Your task to perform on an android device: install app "DoorDash - Food Delivery" Image 0: 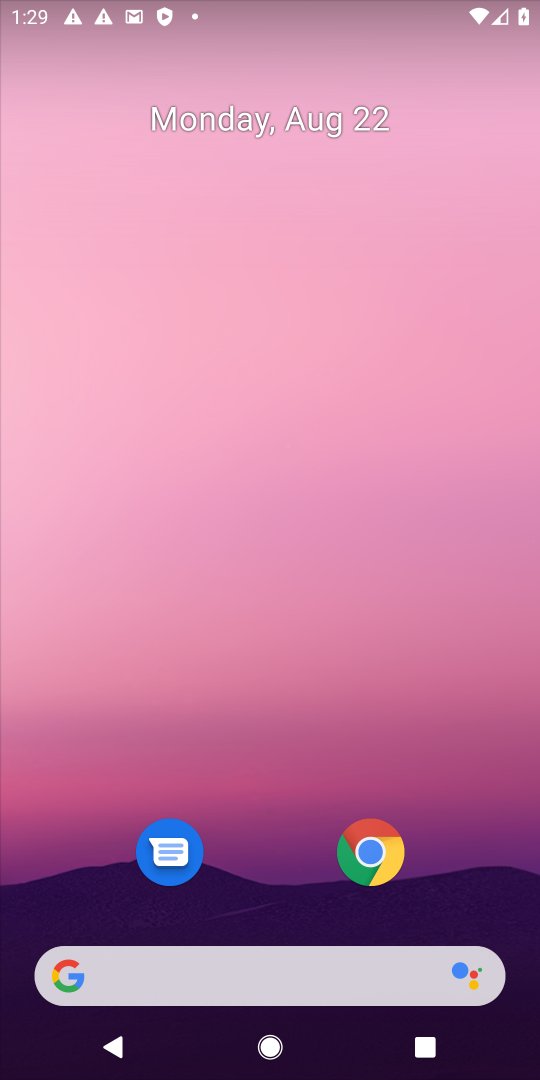
Step 0: drag from (288, 864) to (281, 9)
Your task to perform on an android device: install app "DoorDash - Food Delivery" Image 1: 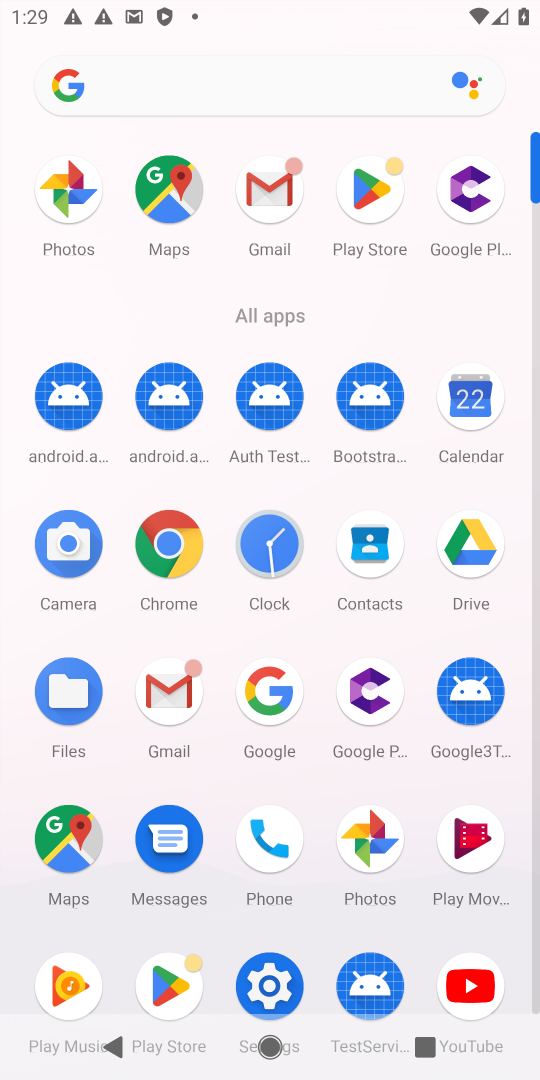
Step 1: click (353, 205)
Your task to perform on an android device: install app "DoorDash - Food Delivery" Image 2: 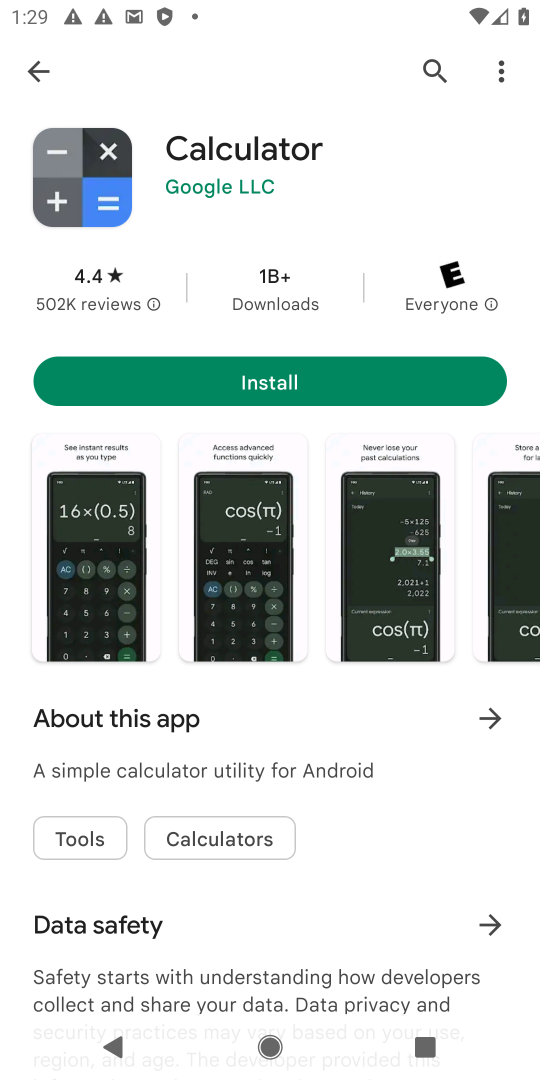
Step 2: click (430, 82)
Your task to perform on an android device: install app "DoorDash - Food Delivery" Image 3: 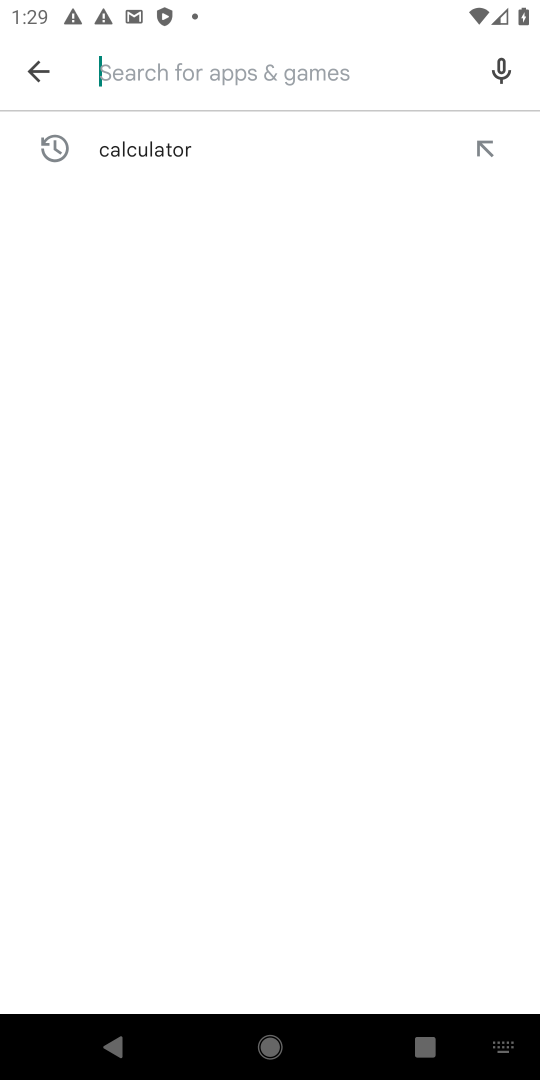
Step 3: type "doordash"
Your task to perform on an android device: install app "DoorDash - Food Delivery" Image 4: 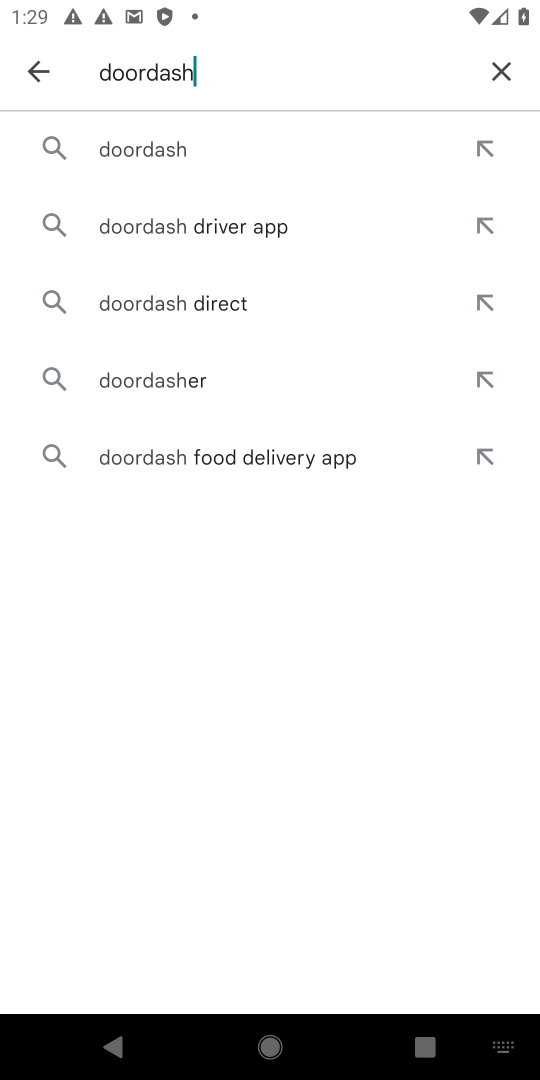
Step 4: click (230, 153)
Your task to perform on an android device: install app "DoorDash - Food Delivery" Image 5: 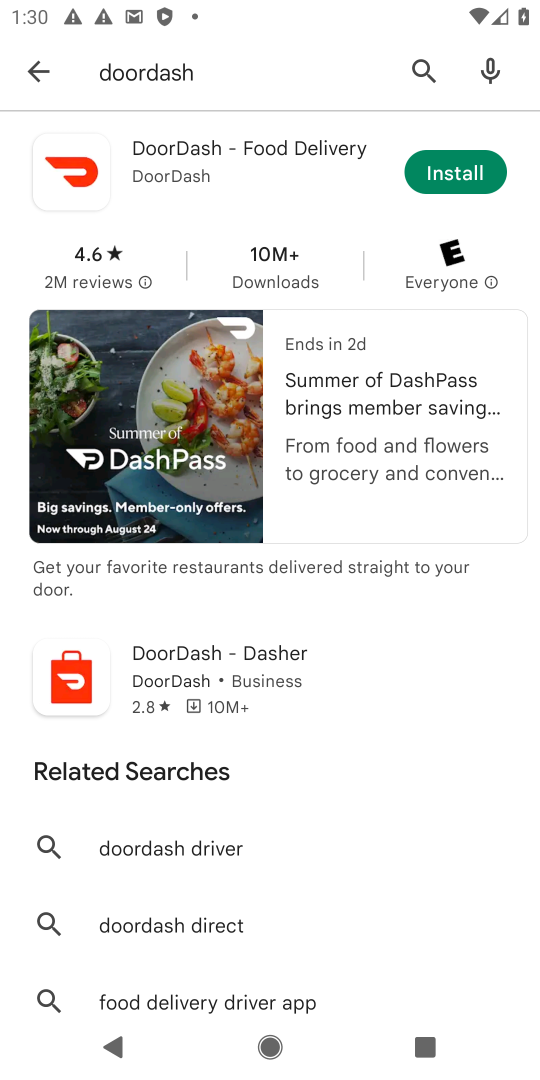
Step 5: click (458, 168)
Your task to perform on an android device: install app "DoorDash - Food Delivery" Image 6: 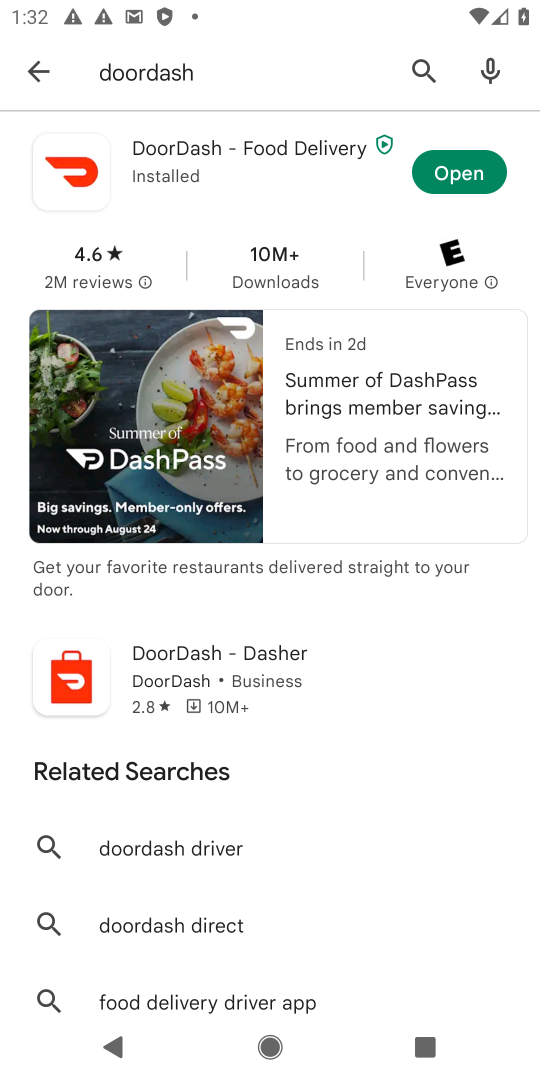
Step 6: task complete